Your task to perform on an android device: turn on data saver in the chrome app Image 0: 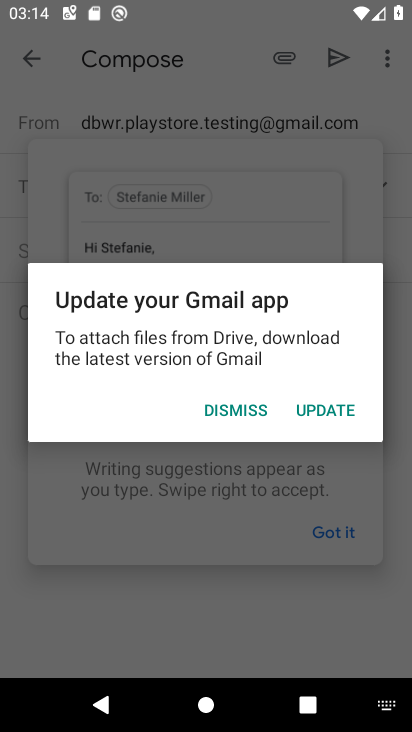
Step 0: press home button
Your task to perform on an android device: turn on data saver in the chrome app Image 1: 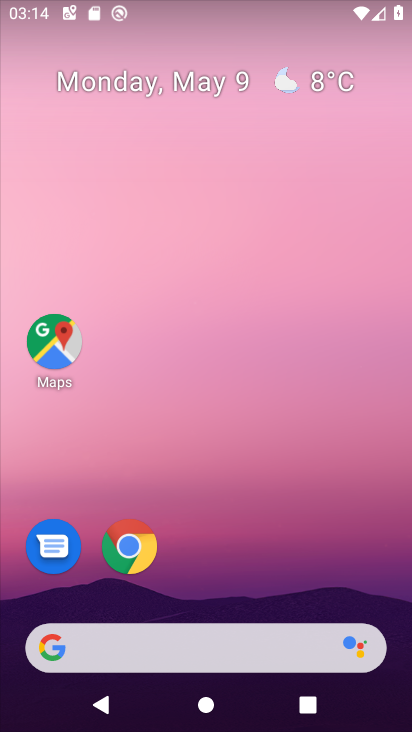
Step 1: click (128, 551)
Your task to perform on an android device: turn on data saver in the chrome app Image 2: 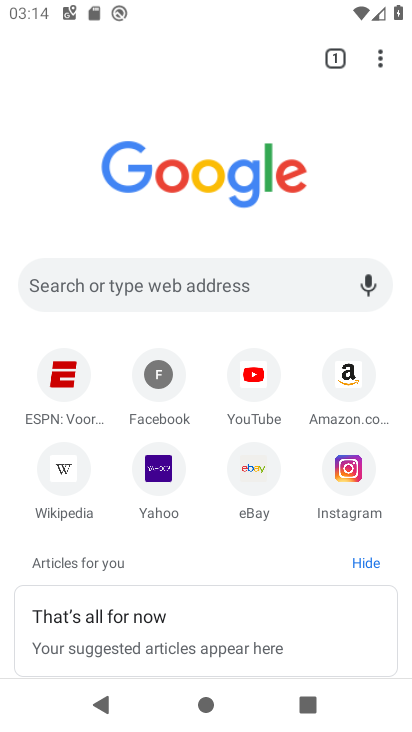
Step 2: click (376, 54)
Your task to perform on an android device: turn on data saver in the chrome app Image 3: 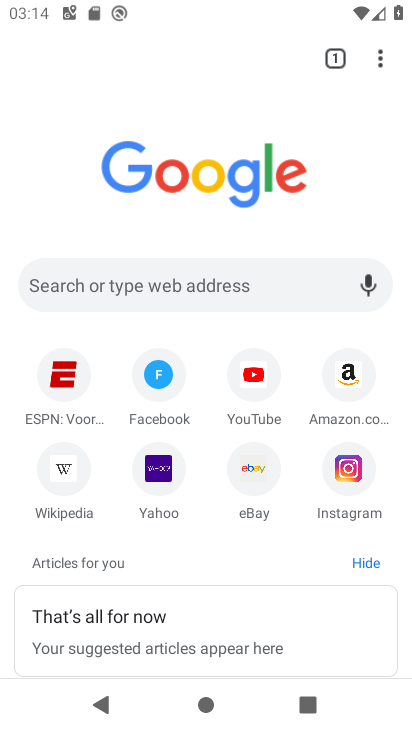
Step 3: click (377, 53)
Your task to perform on an android device: turn on data saver in the chrome app Image 4: 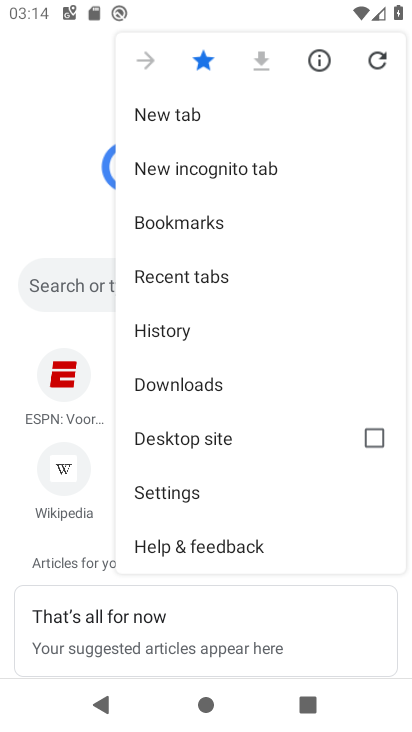
Step 4: click (222, 485)
Your task to perform on an android device: turn on data saver in the chrome app Image 5: 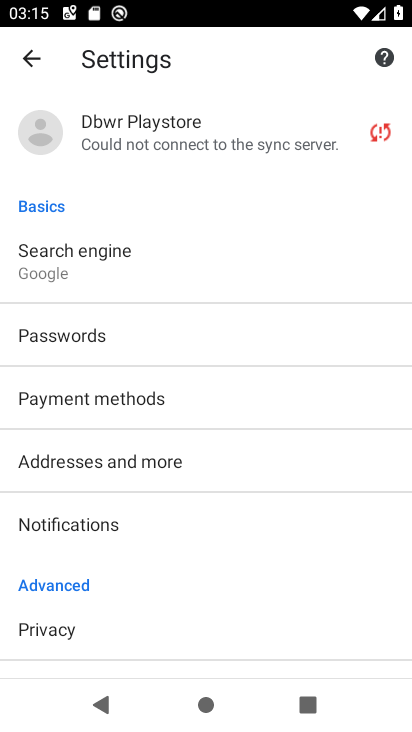
Step 5: drag from (254, 565) to (240, 186)
Your task to perform on an android device: turn on data saver in the chrome app Image 6: 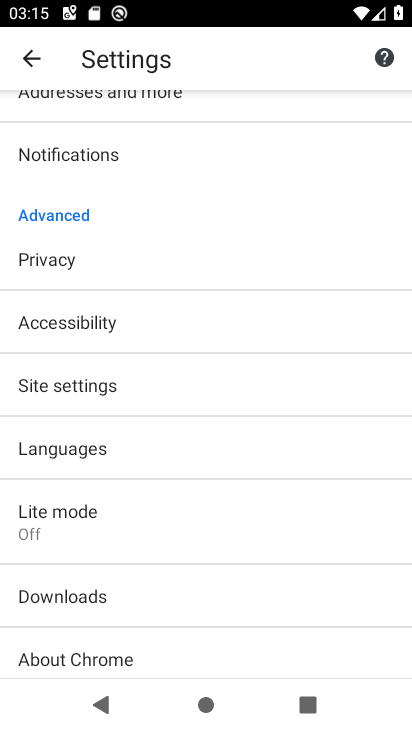
Step 6: click (111, 521)
Your task to perform on an android device: turn on data saver in the chrome app Image 7: 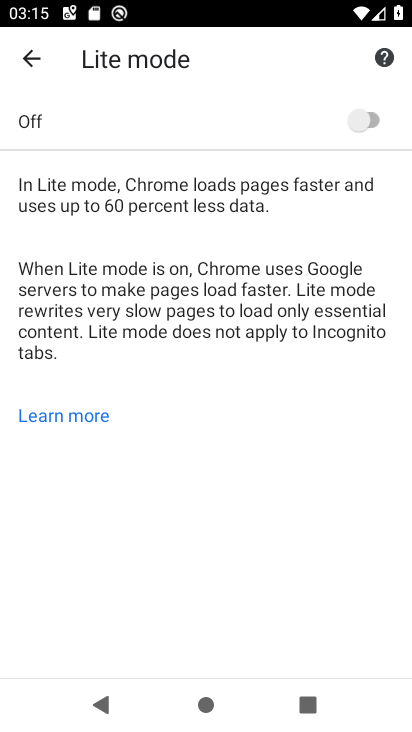
Step 7: click (373, 119)
Your task to perform on an android device: turn on data saver in the chrome app Image 8: 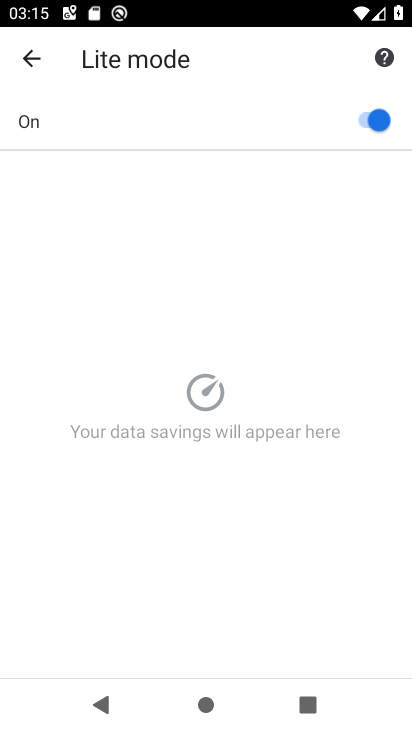
Step 8: task complete